Your task to perform on an android device: Search for Italian restaurants on Maps Image 0: 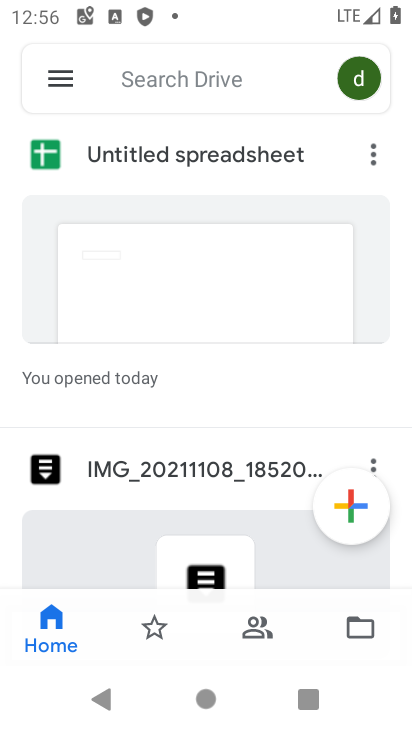
Step 0: press home button
Your task to perform on an android device: Search for Italian restaurants on Maps Image 1: 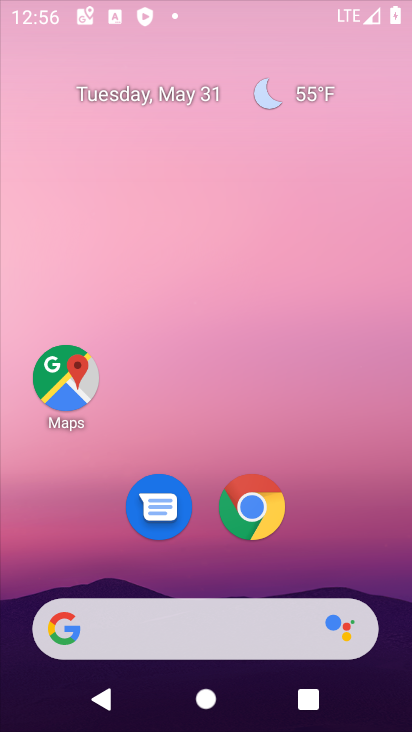
Step 1: drag from (379, 628) to (248, 66)
Your task to perform on an android device: Search for Italian restaurants on Maps Image 2: 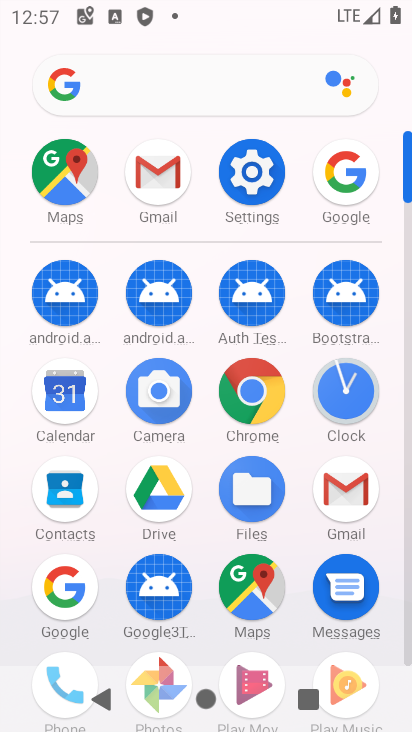
Step 2: click (234, 577)
Your task to perform on an android device: Search for Italian restaurants on Maps Image 3: 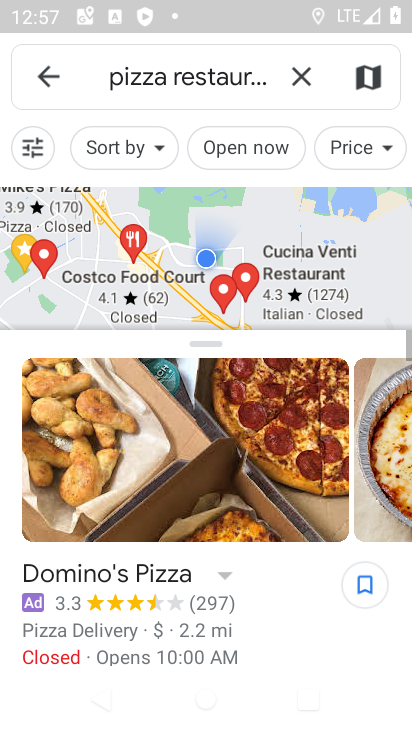
Step 3: click (298, 69)
Your task to perform on an android device: Search for Italian restaurants on Maps Image 4: 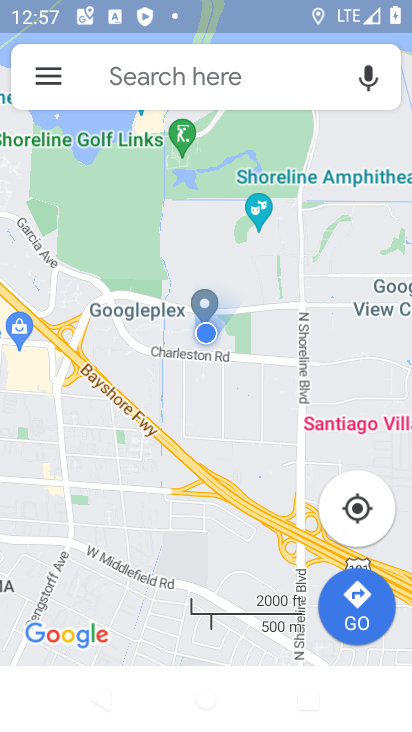
Step 4: click (182, 73)
Your task to perform on an android device: Search for Italian restaurants on Maps Image 5: 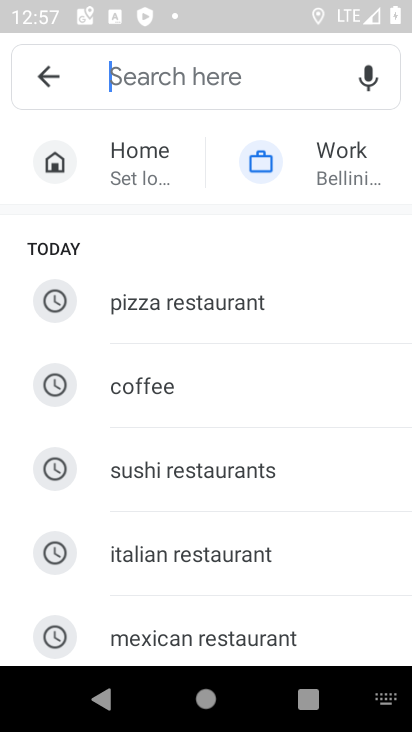
Step 5: click (184, 574)
Your task to perform on an android device: Search for Italian restaurants on Maps Image 6: 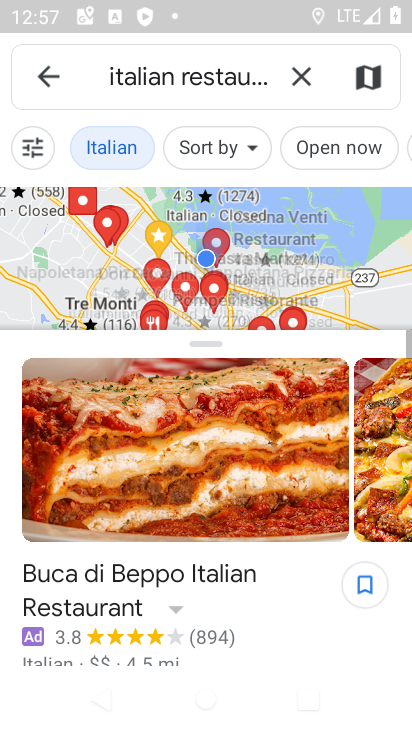
Step 6: task complete